Your task to perform on an android device: check out phone information Image 0: 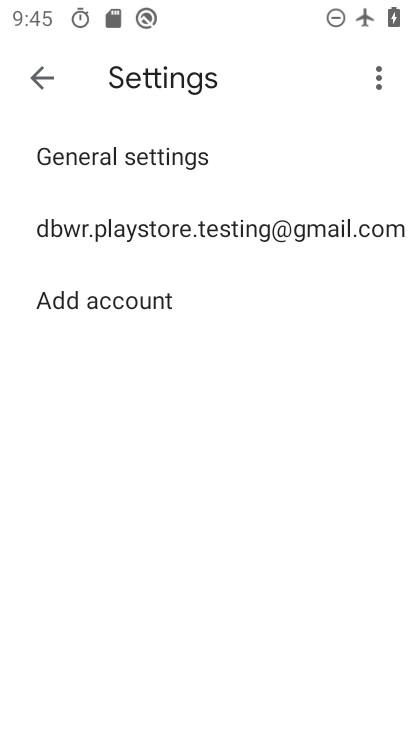
Step 0: press home button
Your task to perform on an android device: check out phone information Image 1: 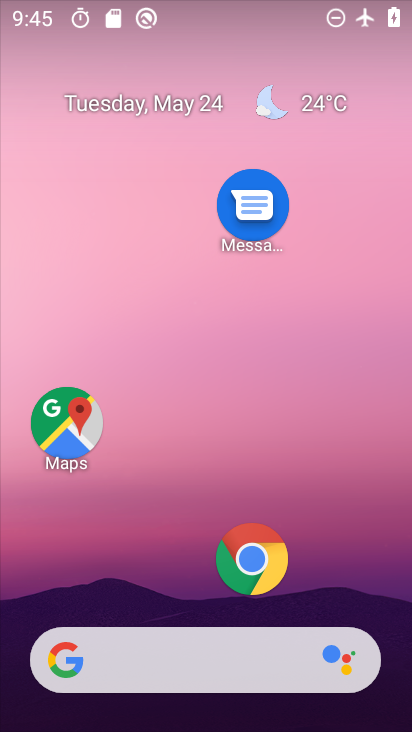
Step 1: drag from (186, 602) to (175, 198)
Your task to perform on an android device: check out phone information Image 2: 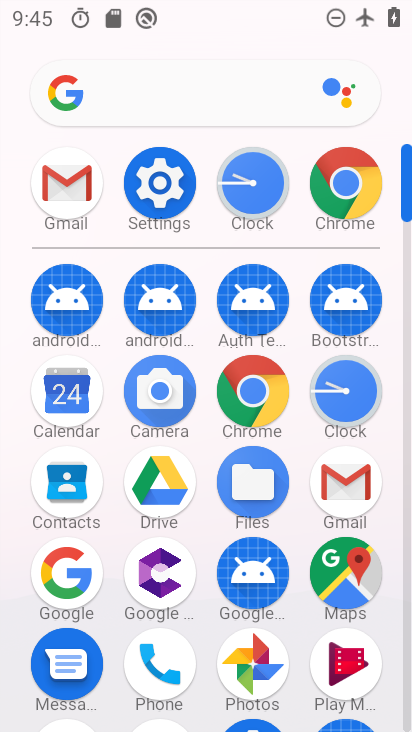
Step 2: click (175, 195)
Your task to perform on an android device: check out phone information Image 3: 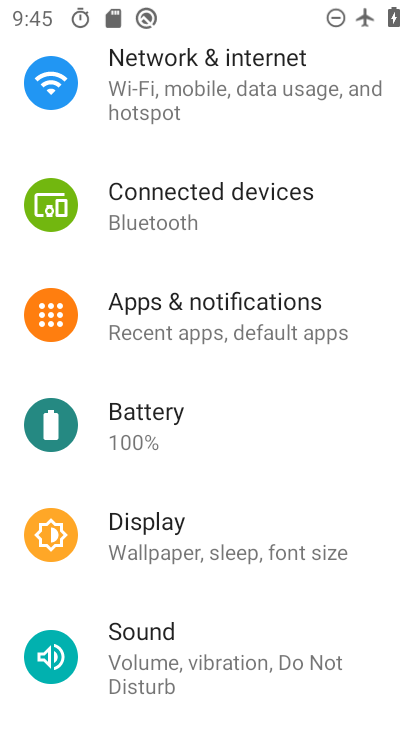
Step 3: drag from (220, 650) to (222, 257)
Your task to perform on an android device: check out phone information Image 4: 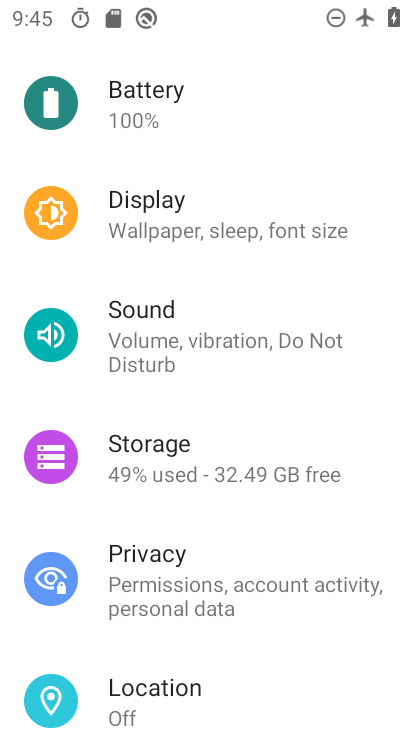
Step 4: drag from (224, 649) to (224, 325)
Your task to perform on an android device: check out phone information Image 5: 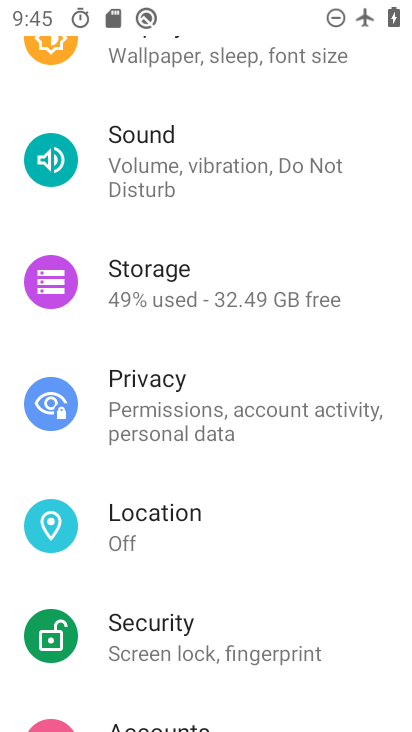
Step 5: drag from (255, 603) to (238, 315)
Your task to perform on an android device: check out phone information Image 6: 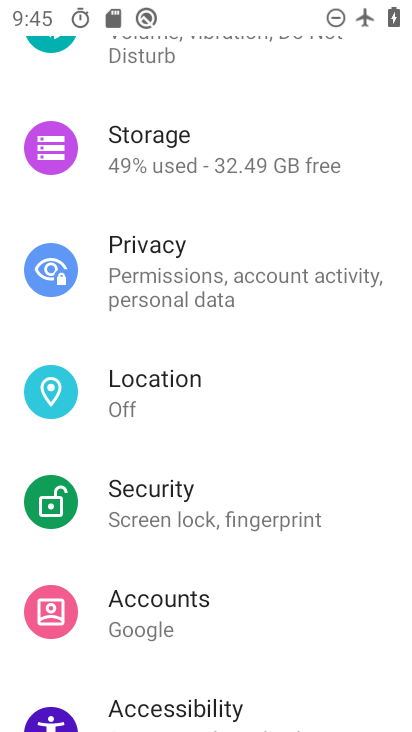
Step 6: drag from (244, 537) to (250, 299)
Your task to perform on an android device: check out phone information Image 7: 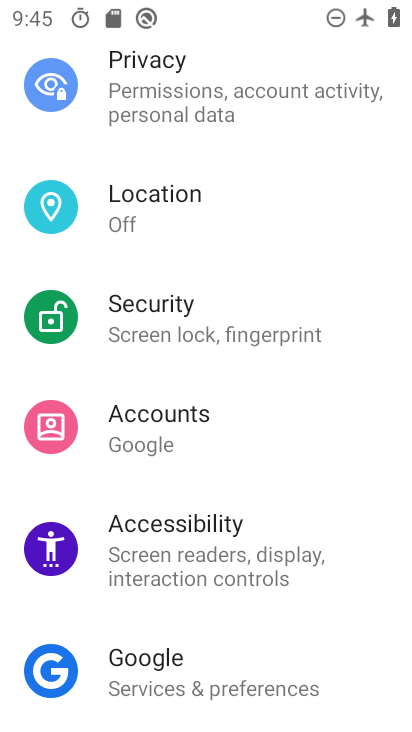
Step 7: drag from (274, 588) to (263, 284)
Your task to perform on an android device: check out phone information Image 8: 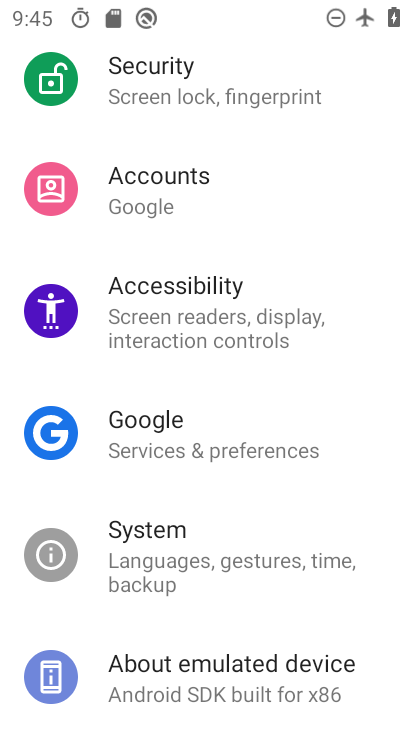
Step 8: drag from (246, 641) to (246, 445)
Your task to perform on an android device: check out phone information Image 9: 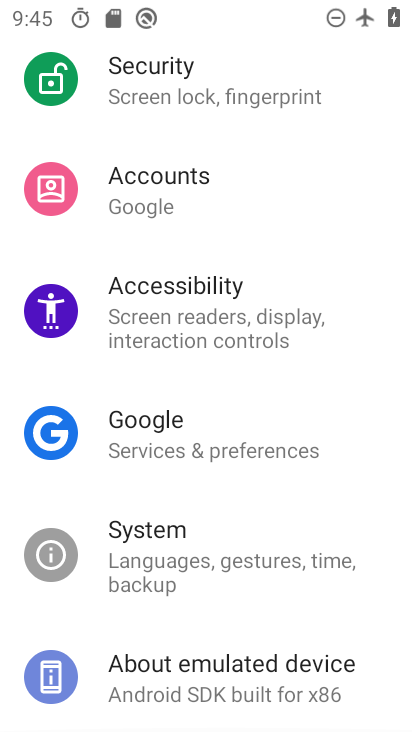
Step 9: click (212, 649)
Your task to perform on an android device: check out phone information Image 10: 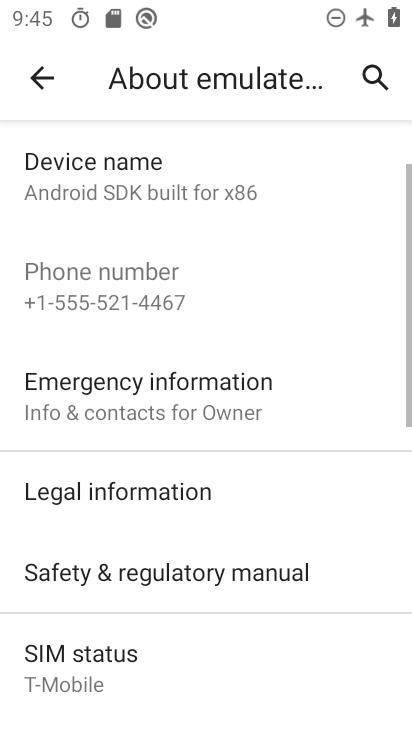
Step 10: task complete